Your task to perform on an android device: change the upload size in google photos Image 0: 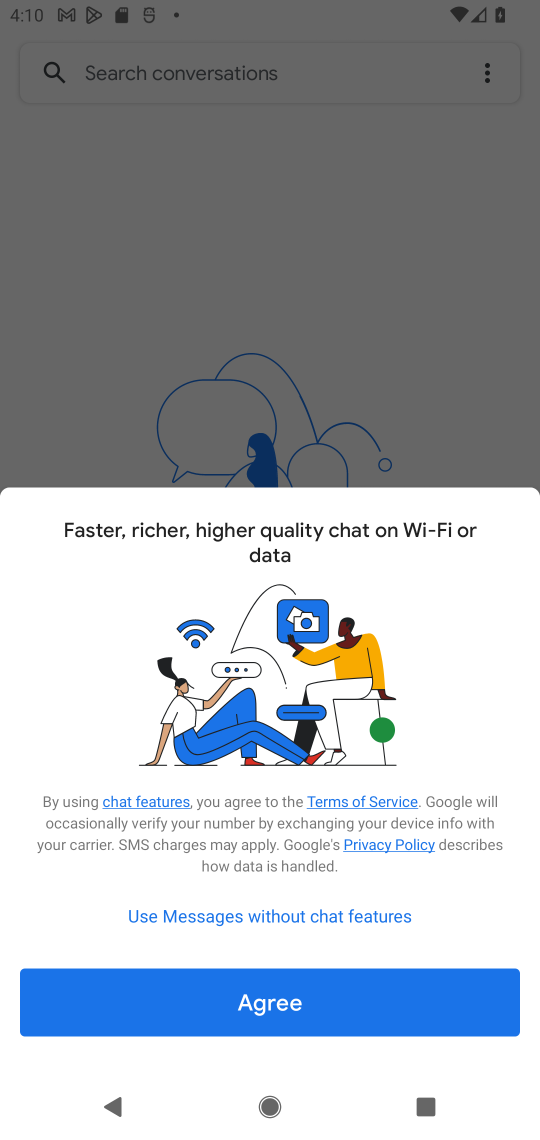
Step 0: press home button
Your task to perform on an android device: change the upload size in google photos Image 1: 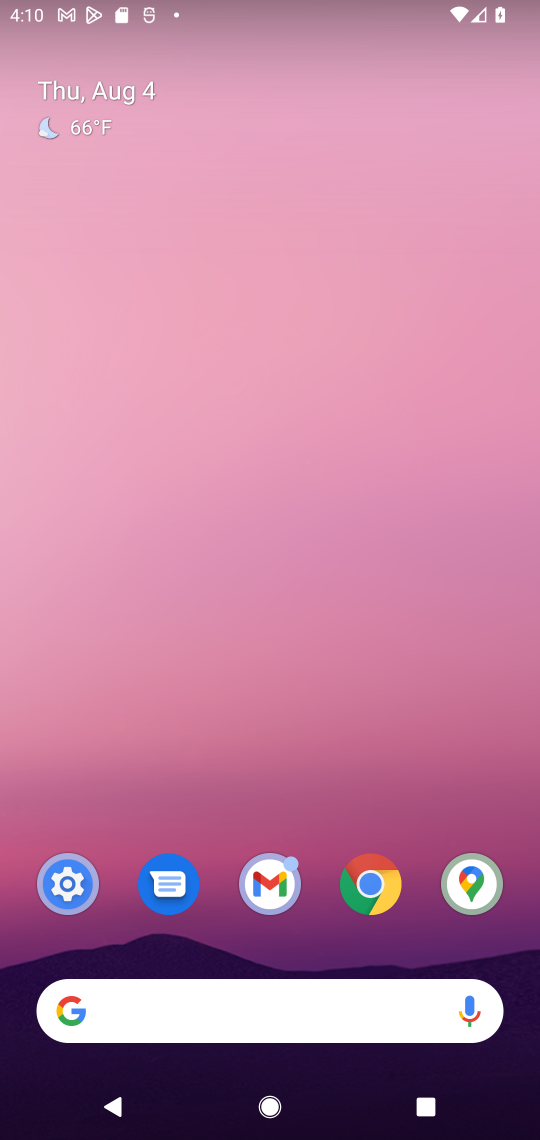
Step 1: drag from (332, 947) to (466, 149)
Your task to perform on an android device: change the upload size in google photos Image 2: 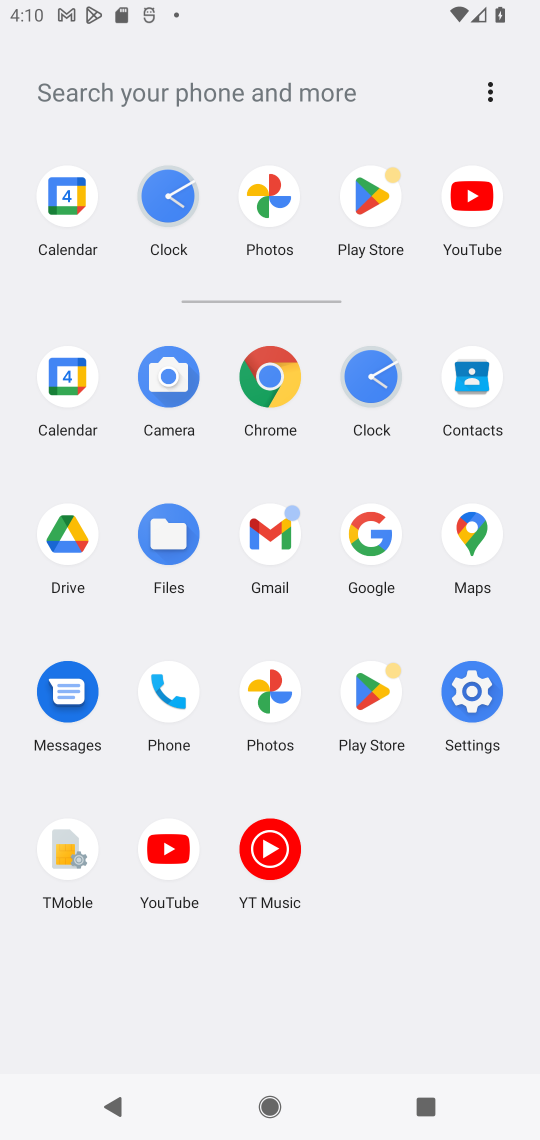
Step 2: click (280, 239)
Your task to perform on an android device: change the upload size in google photos Image 3: 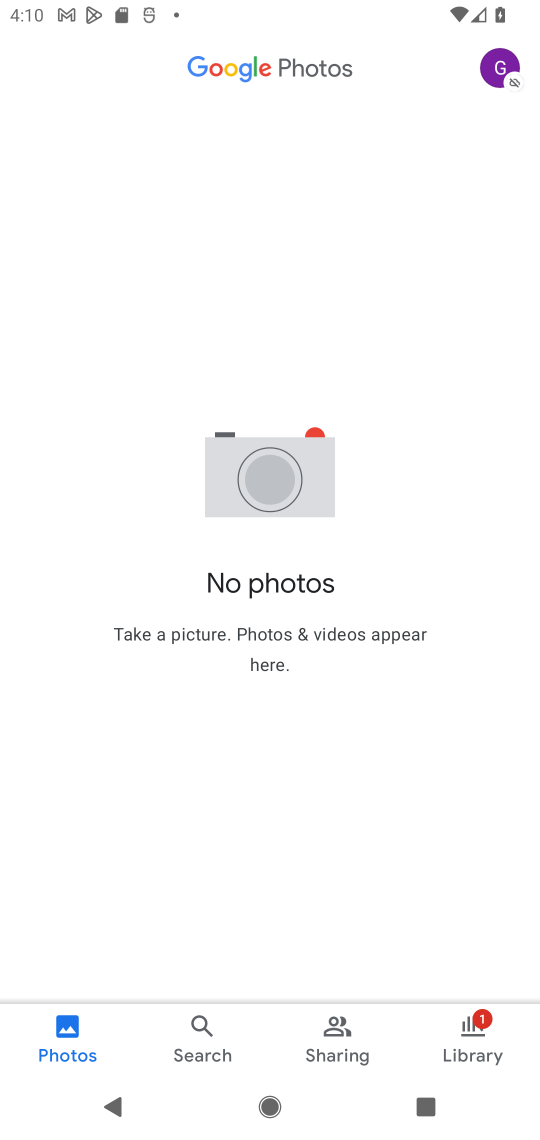
Step 3: task complete